Your task to perform on an android device: Go to calendar. Show me events next week Image 0: 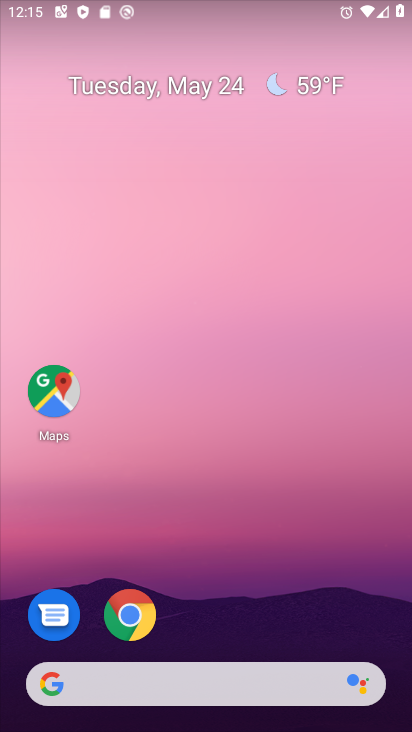
Step 0: drag from (247, 578) to (247, 37)
Your task to perform on an android device: Go to calendar. Show me events next week Image 1: 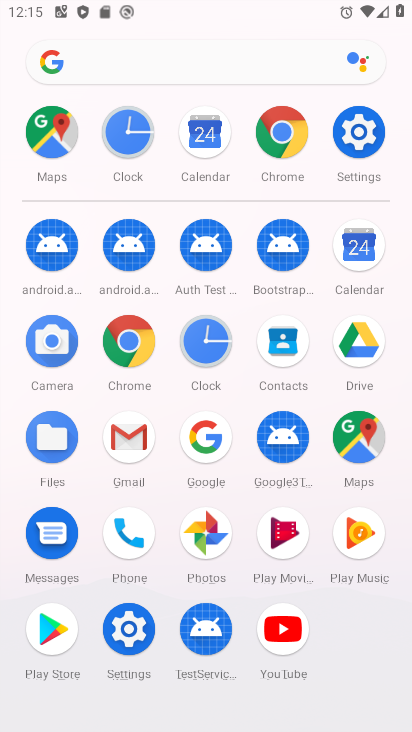
Step 1: drag from (5, 541) to (9, 180)
Your task to perform on an android device: Go to calendar. Show me events next week Image 2: 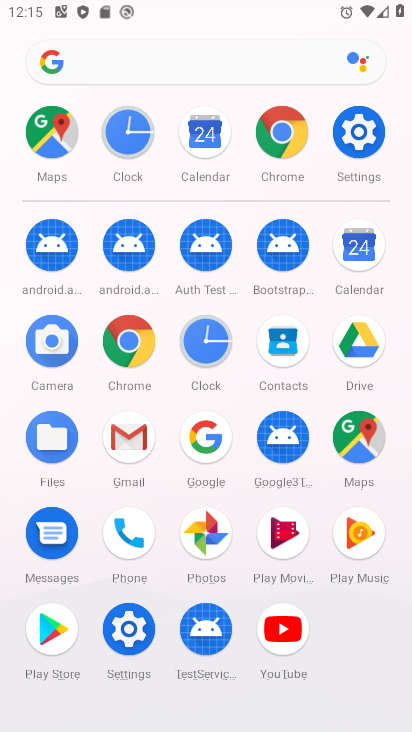
Step 2: drag from (10, 505) to (5, 153)
Your task to perform on an android device: Go to calendar. Show me events next week Image 3: 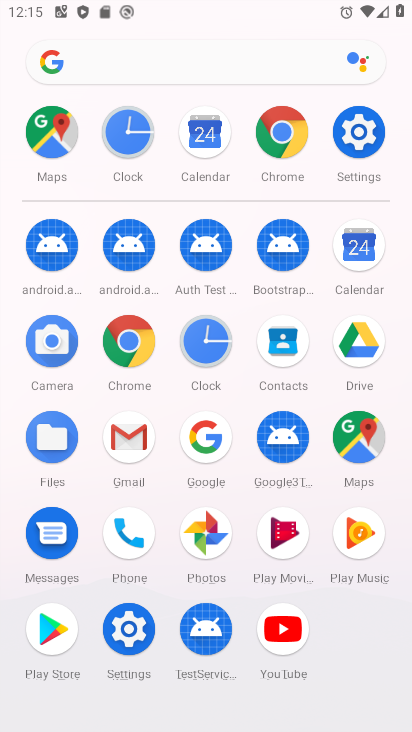
Step 3: click (356, 243)
Your task to perform on an android device: Go to calendar. Show me events next week Image 4: 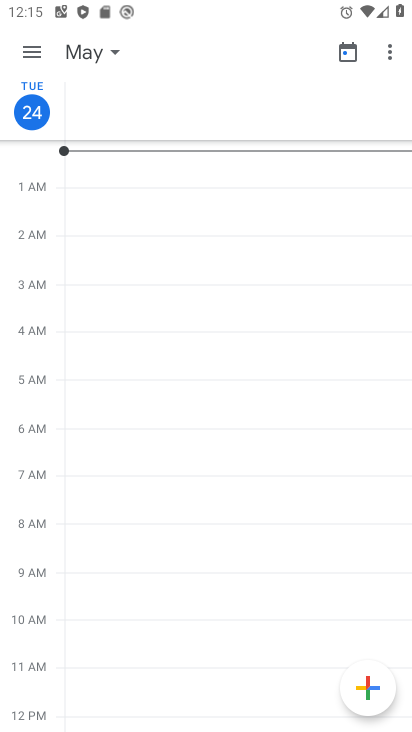
Step 4: drag from (217, 575) to (217, 193)
Your task to perform on an android device: Go to calendar. Show me events next week Image 5: 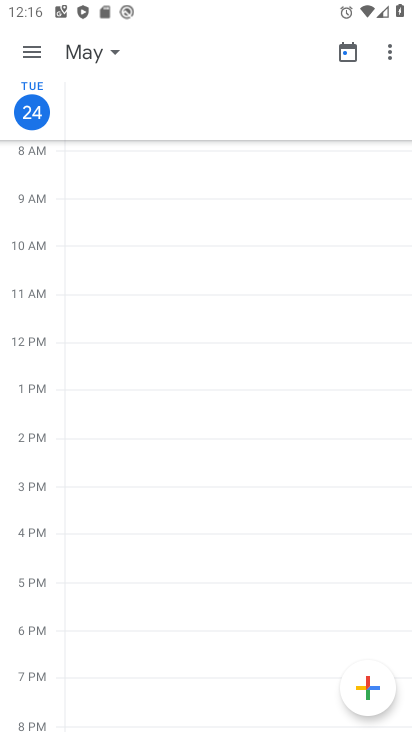
Step 5: click (16, 45)
Your task to perform on an android device: Go to calendar. Show me events next week Image 6: 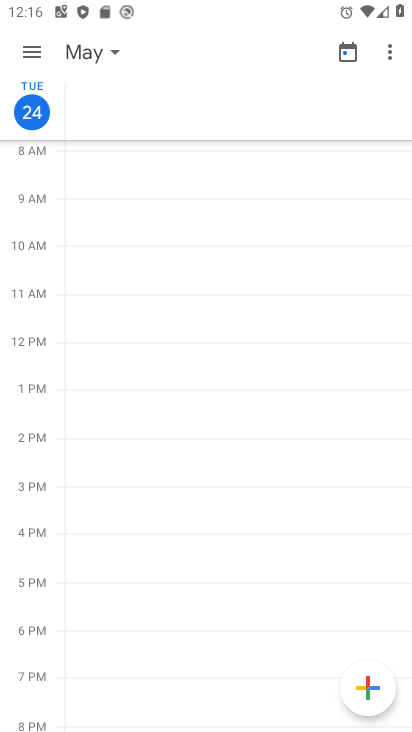
Step 6: click (37, 48)
Your task to perform on an android device: Go to calendar. Show me events next week Image 7: 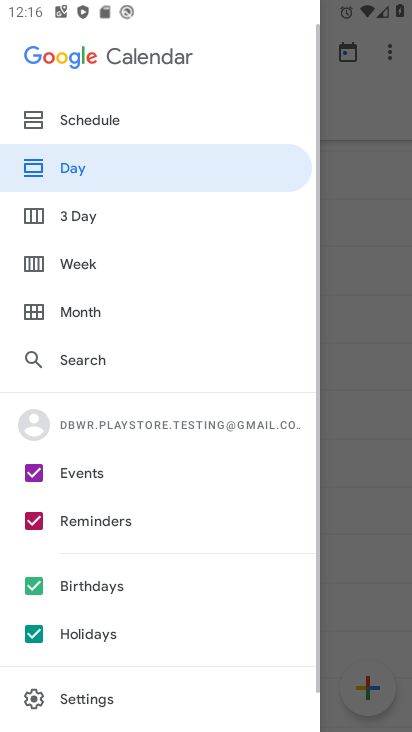
Step 7: click (114, 267)
Your task to perform on an android device: Go to calendar. Show me events next week Image 8: 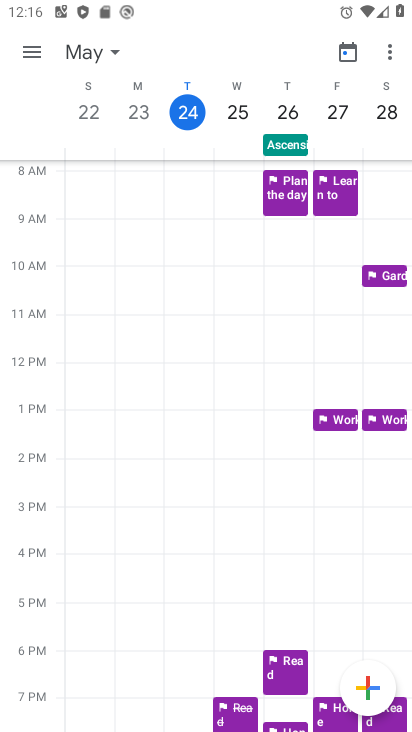
Step 8: task complete